Your task to perform on an android device: Open network settings Image 0: 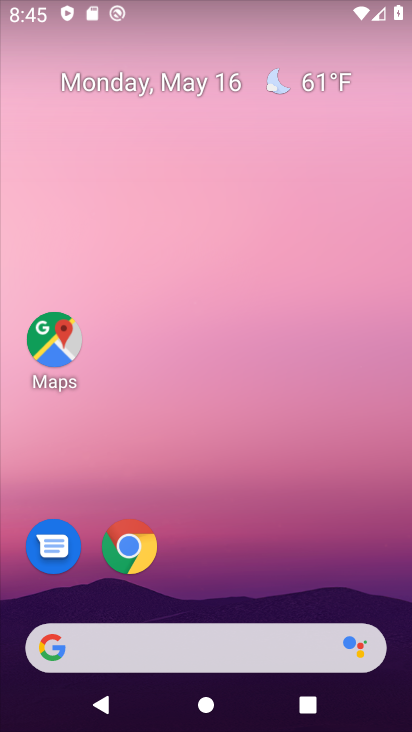
Step 0: drag from (289, 587) to (201, 151)
Your task to perform on an android device: Open network settings Image 1: 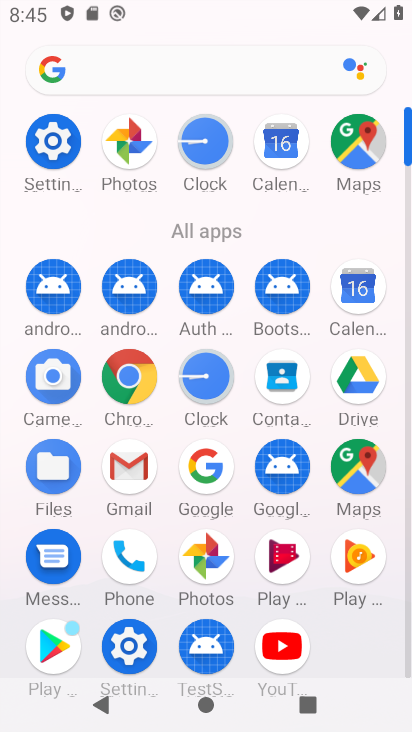
Step 1: click (67, 153)
Your task to perform on an android device: Open network settings Image 2: 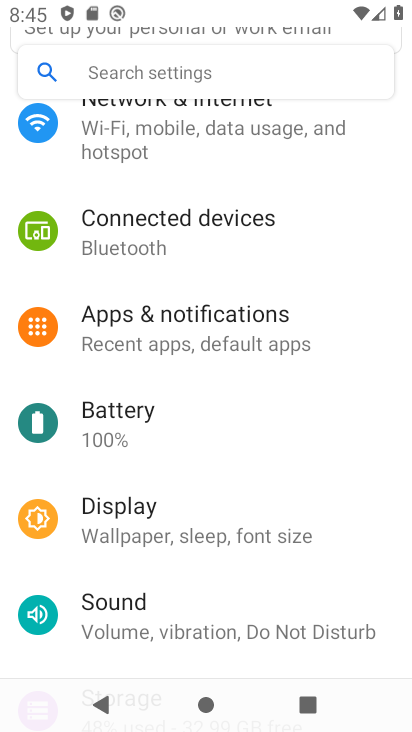
Step 2: drag from (169, 196) to (217, 387)
Your task to perform on an android device: Open network settings Image 3: 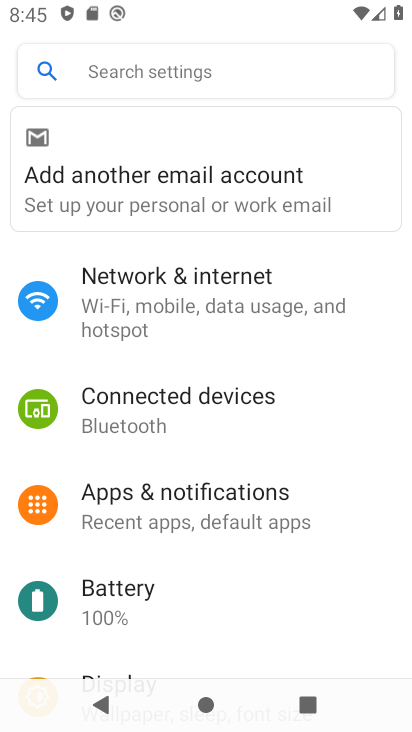
Step 3: click (185, 289)
Your task to perform on an android device: Open network settings Image 4: 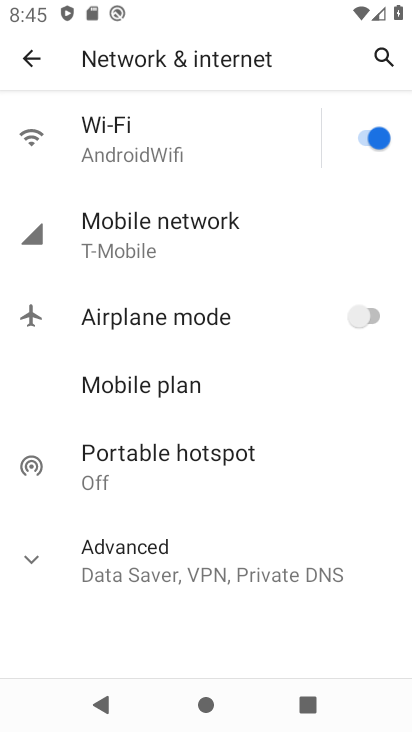
Step 4: task complete